Your task to perform on an android device: refresh tabs in the chrome app Image 0: 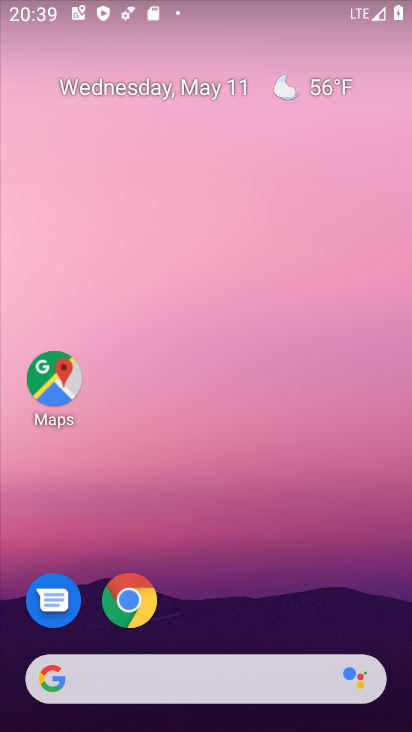
Step 0: click (128, 596)
Your task to perform on an android device: refresh tabs in the chrome app Image 1: 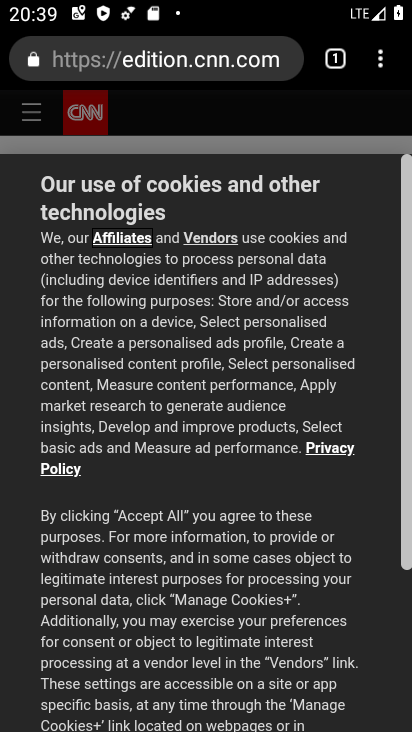
Step 1: click (382, 62)
Your task to perform on an android device: refresh tabs in the chrome app Image 2: 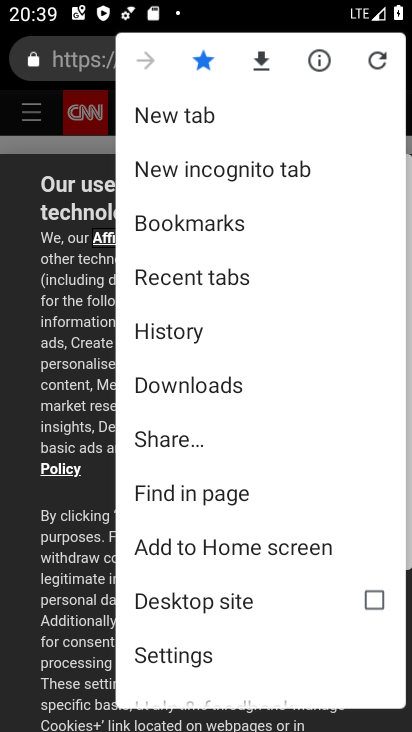
Step 2: click (382, 62)
Your task to perform on an android device: refresh tabs in the chrome app Image 3: 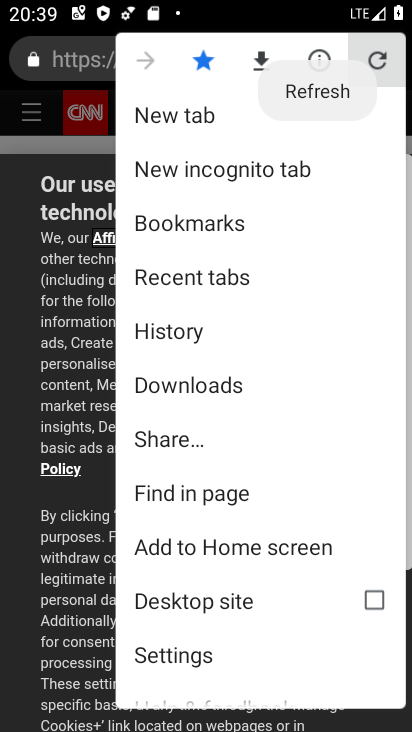
Step 3: click (382, 62)
Your task to perform on an android device: refresh tabs in the chrome app Image 4: 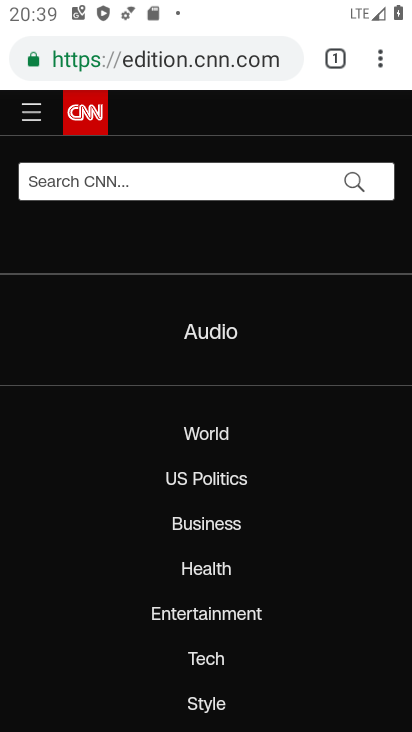
Step 4: task complete